Your task to perform on an android device: Open Reddit.com Image 0: 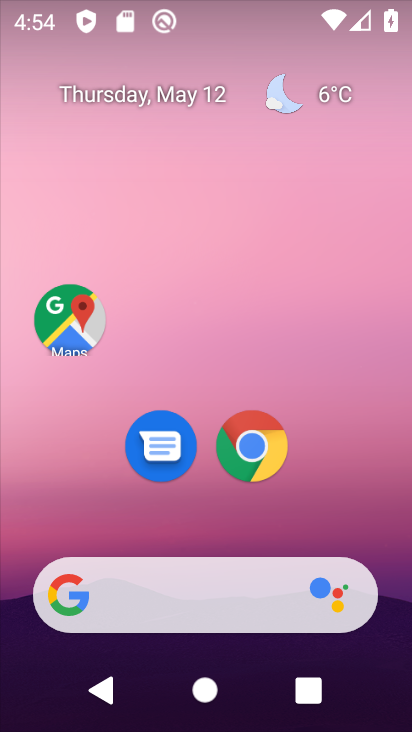
Step 0: click (267, 439)
Your task to perform on an android device: Open Reddit.com Image 1: 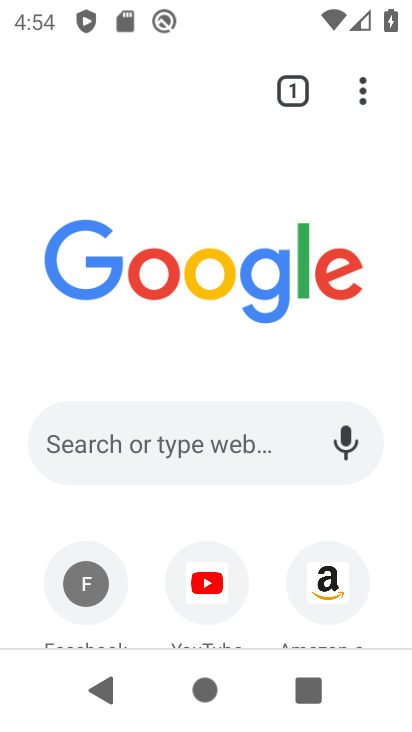
Step 1: click (220, 435)
Your task to perform on an android device: Open Reddit.com Image 2: 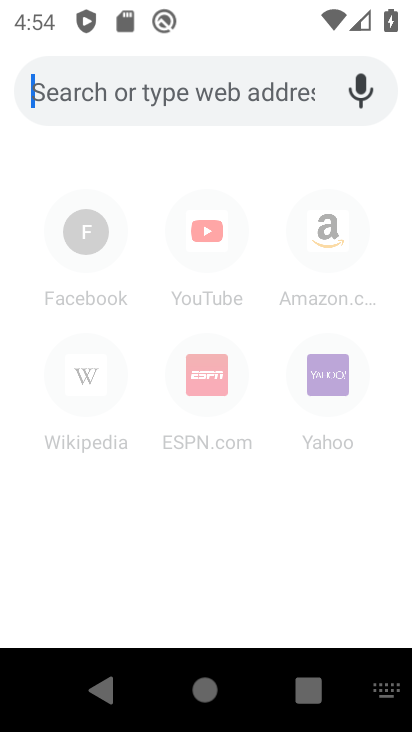
Step 2: type "Reddit.com"
Your task to perform on an android device: Open Reddit.com Image 3: 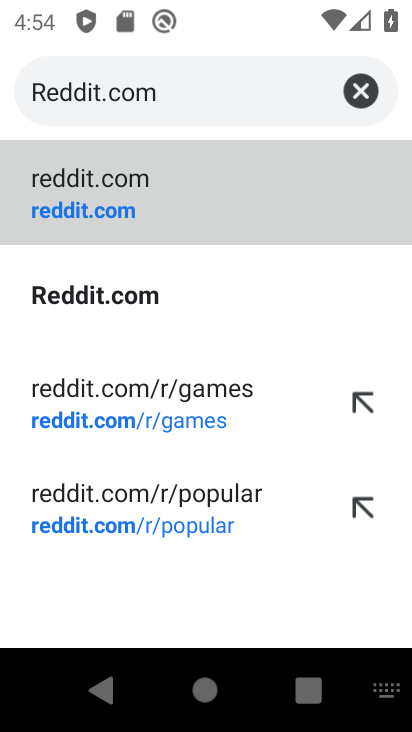
Step 3: click (108, 208)
Your task to perform on an android device: Open Reddit.com Image 4: 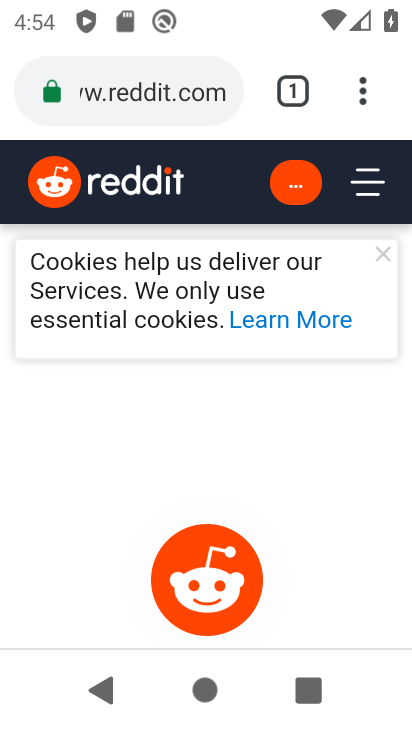
Step 4: task complete